Your task to perform on an android device: Go to privacy settings Image 0: 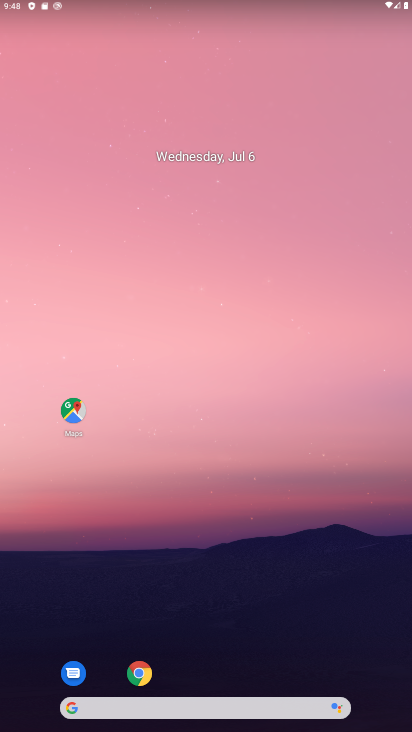
Step 0: click (221, 4)
Your task to perform on an android device: Go to privacy settings Image 1: 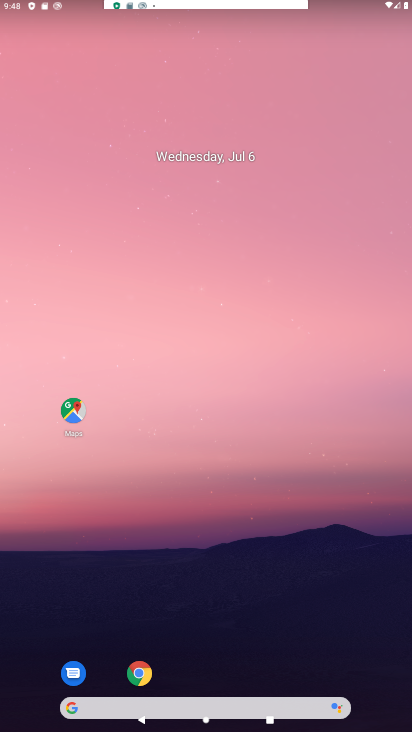
Step 1: drag from (221, 4) to (304, 406)
Your task to perform on an android device: Go to privacy settings Image 2: 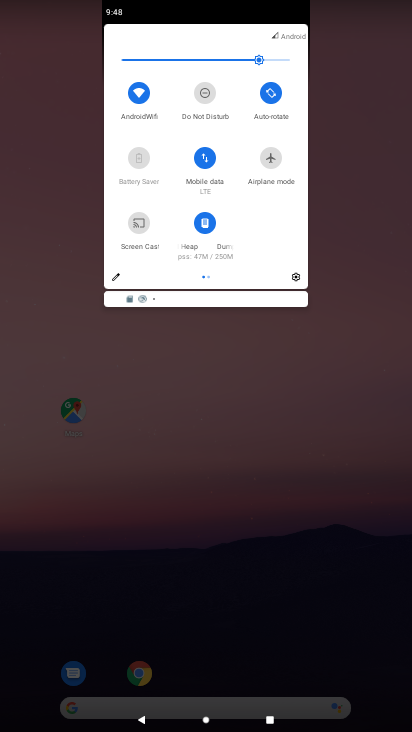
Step 2: click (297, 275)
Your task to perform on an android device: Go to privacy settings Image 3: 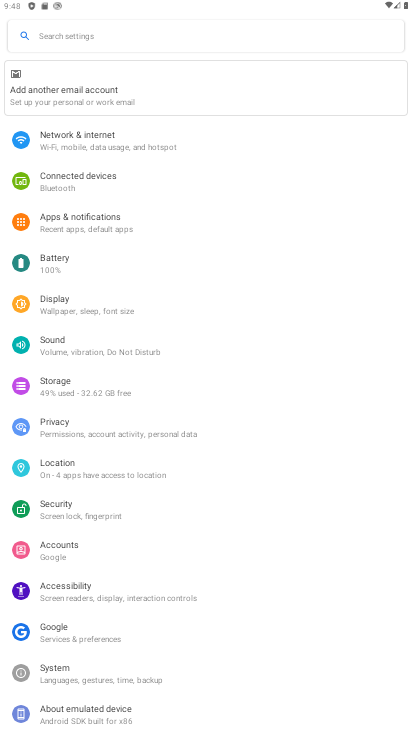
Step 3: click (90, 447)
Your task to perform on an android device: Go to privacy settings Image 4: 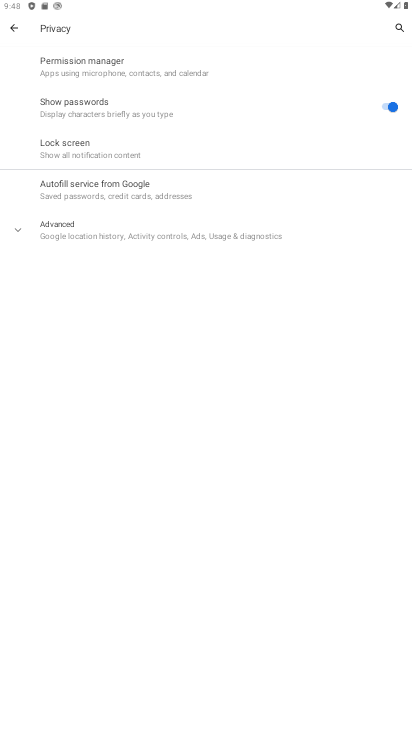
Step 4: task complete